Your task to perform on an android device: Check out the best rated 4k TV on Best Buy. Image 0: 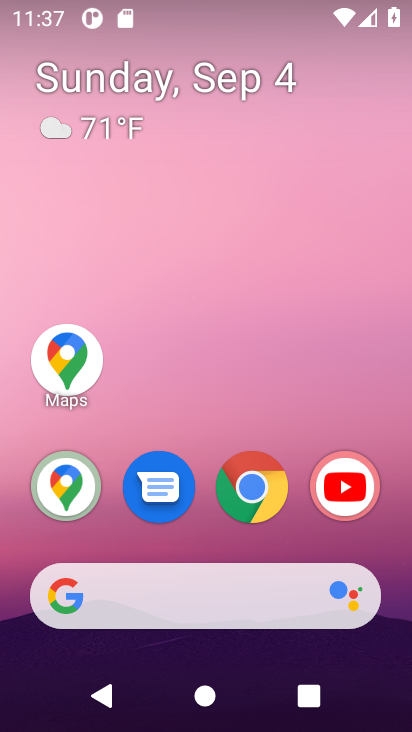
Step 0: click (367, 465)
Your task to perform on an android device: Check out the best rated 4k TV on Best Buy. Image 1: 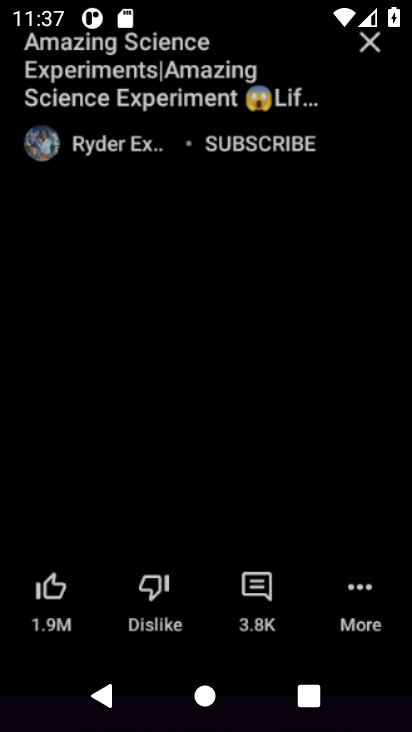
Step 1: task complete